Your task to perform on an android device: What's the weather today? Image 0: 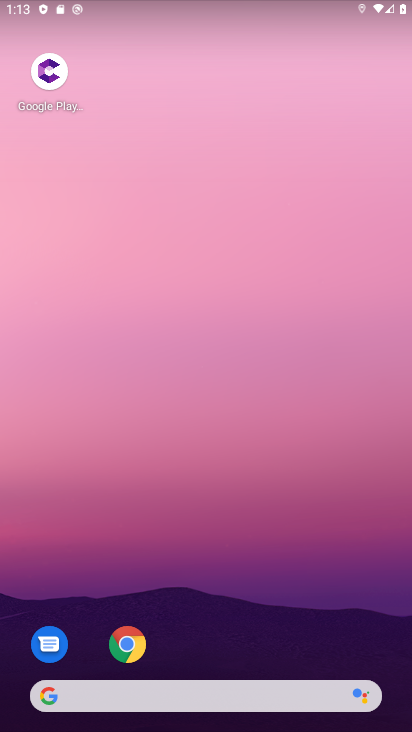
Step 0: click (122, 645)
Your task to perform on an android device: What's the weather today? Image 1: 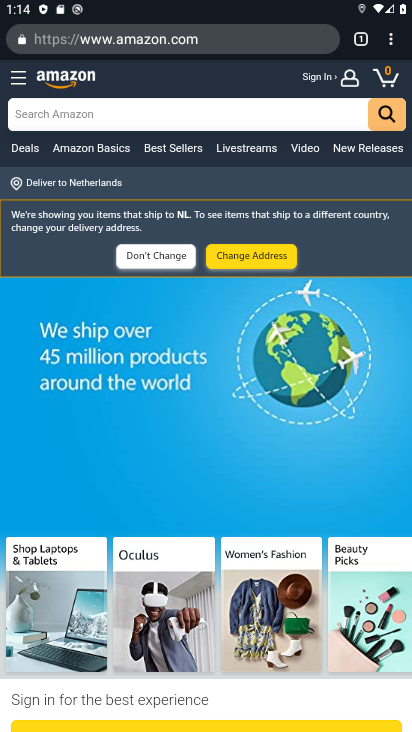
Step 1: click (215, 36)
Your task to perform on an android device: What's the weather today? Image 2: 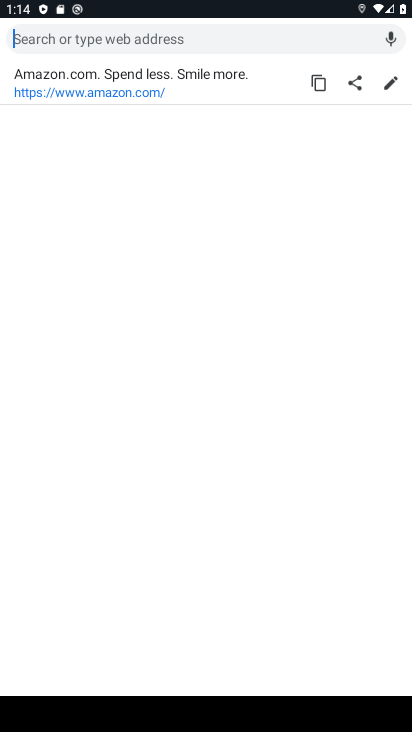
Step 2: type "What's the weather today?"
Your task to perform on an android device: What's the weather today? Image 3: 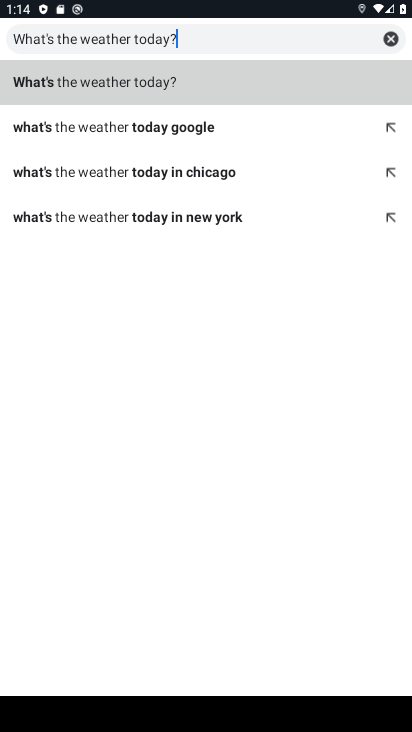
Step 3: click (172, 82)
Your task to perform on an android device: What's the weather today? Image 4: 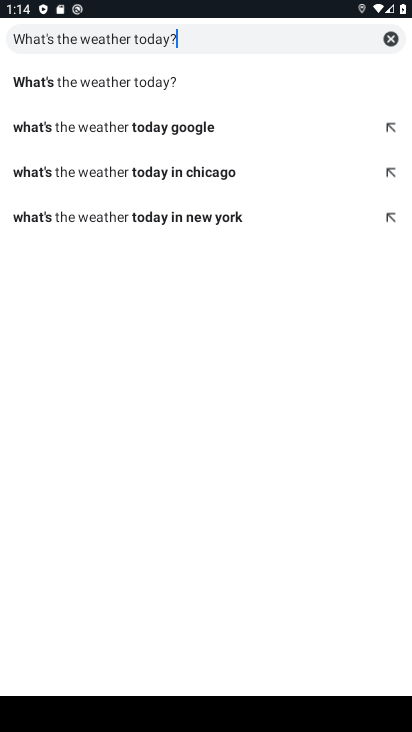
Step 4: click (150, 84)
Your task to perform on an android device: What's the weather today? Image 5: 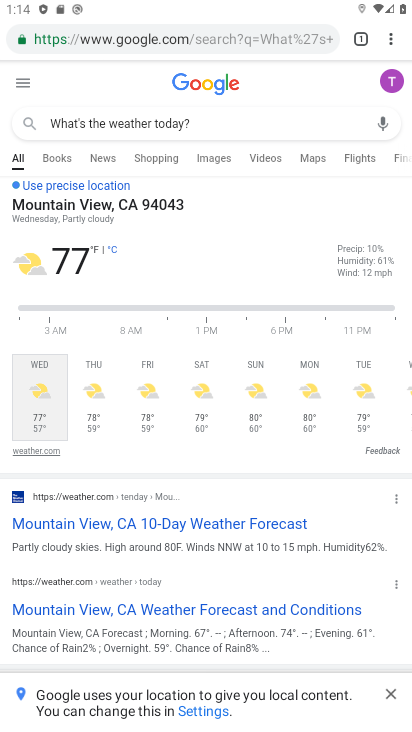
Step 5: task complete